Your task to perform on an android device: clear all cookies in the chrome app Image 0: 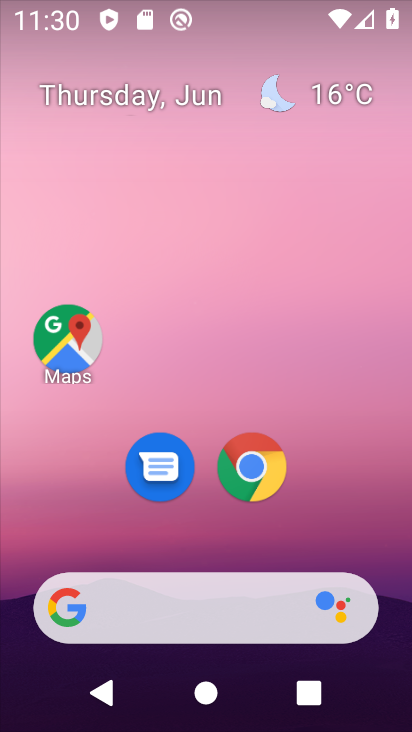
Step 0: click (250, 473)
Your task to perform on an android device: clear all cookies in the chrome app Image 1: 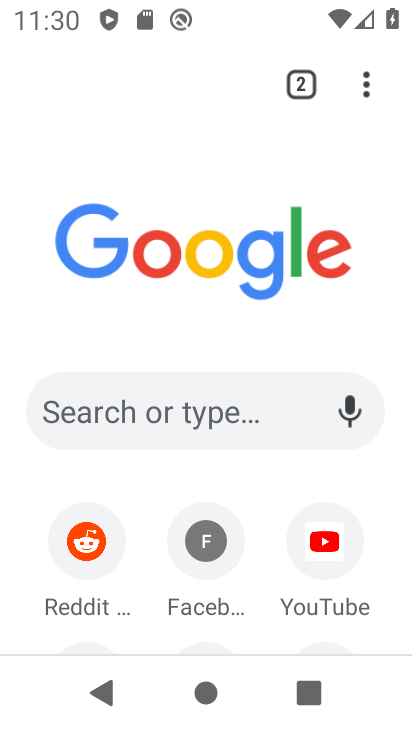
Step 1: click (366, 94)
Your task to perform on an android device: clear all cookies in the chrome app Image 2: 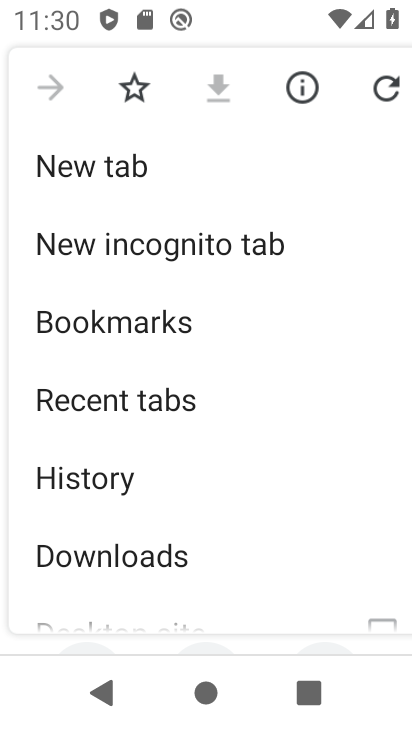
Step 2: drag from (222, 559) to (310, 104)
Your task to perform on an android device: clear all cookies in the chrome app Image 3: 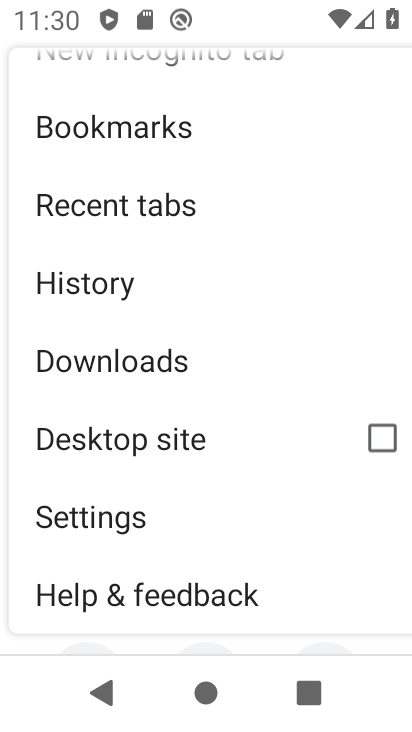
Step 3: click (136, 523)
Your task to perform on an android device: clear all cookies in the chrome app Image 4: 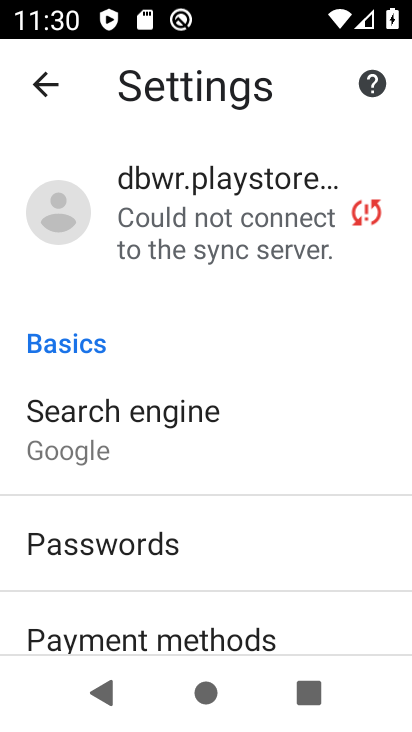
Step 4: drag from (275, 616) to (282, 184)
Your task to perform on an android device: clear all cookies in the chrome app Image 5: 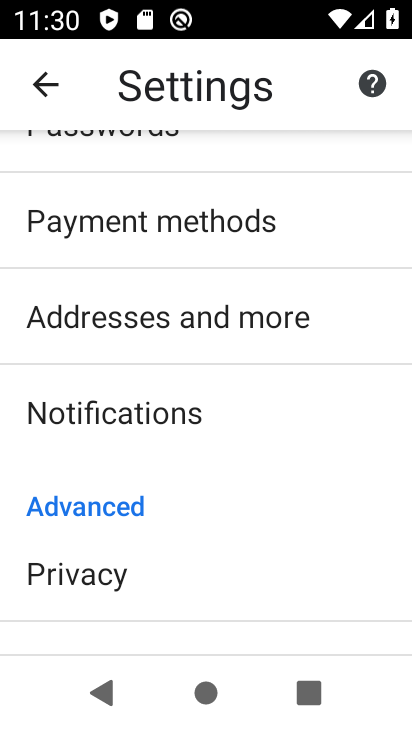
Step 5: drag from (216, 577) to (318, 139)
Your task to perform on an android device: clear all cookies in the chrome app Image 6: 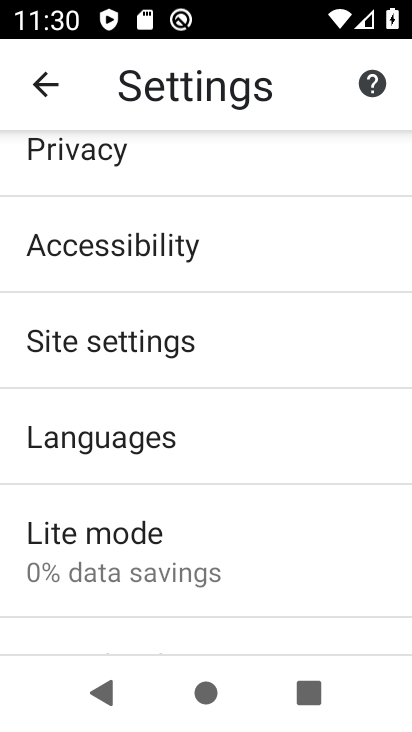
Step 6: press back button
Your task to perform on an android device: clear all cookies in the chrome app Image 7: 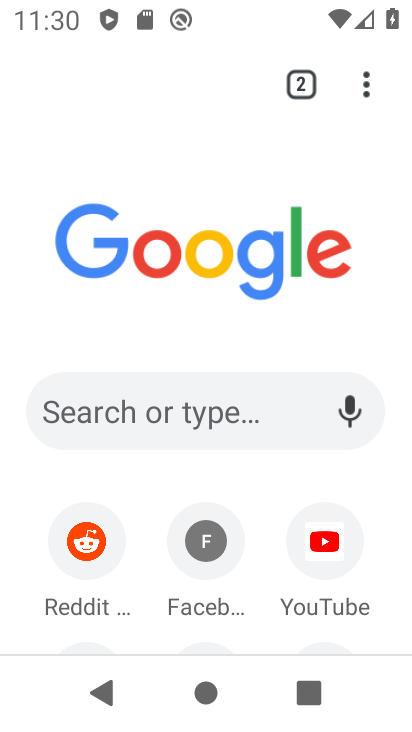
Step 7: click (364, 93)
Your task to perform on an android device: clear all cookies in the chrome app Image 8: 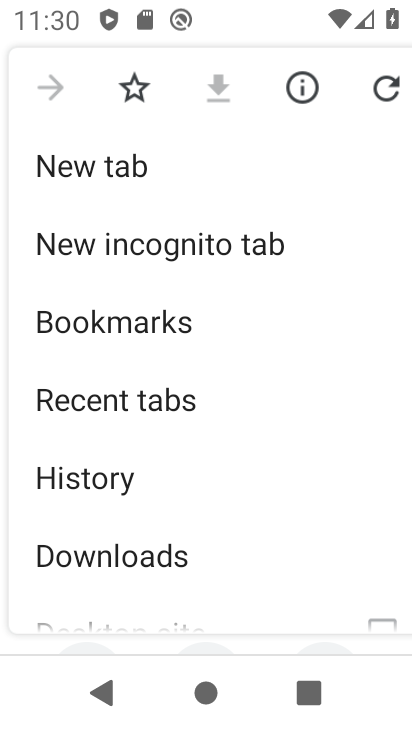
Step 8: click (87, 490)
Your task to perform on an android device: clear all cookies in the chrome app Image 9: 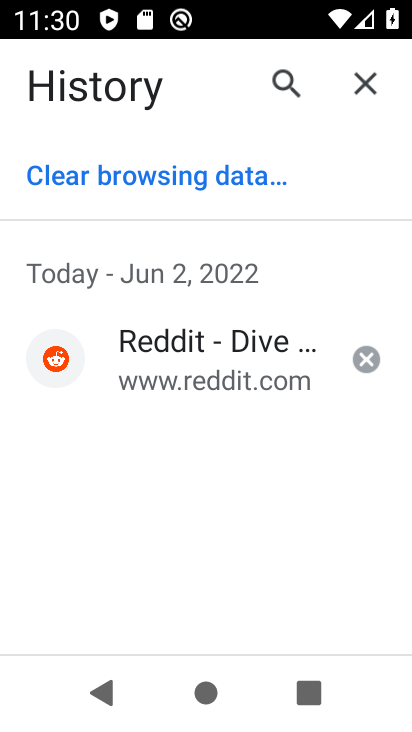
Step 9: click (139, 179)
Your task to perform on an android device: clear all cookies in the chrome app Image 10: 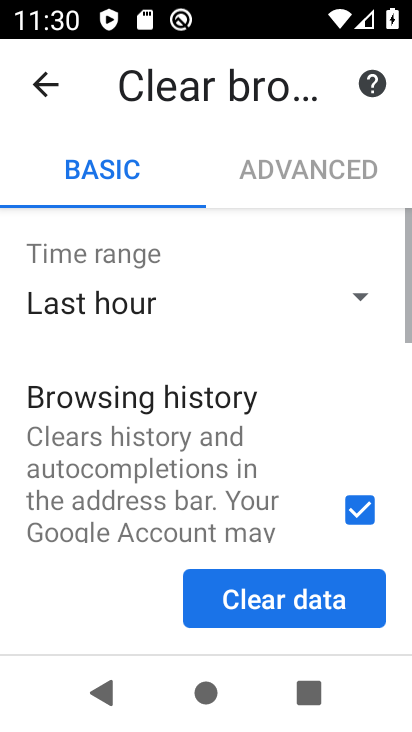
Step 10: drag from (258, 511) to (252, 178)
Your task to perform on an android device: clear all cookies in the chrome app Image 11: 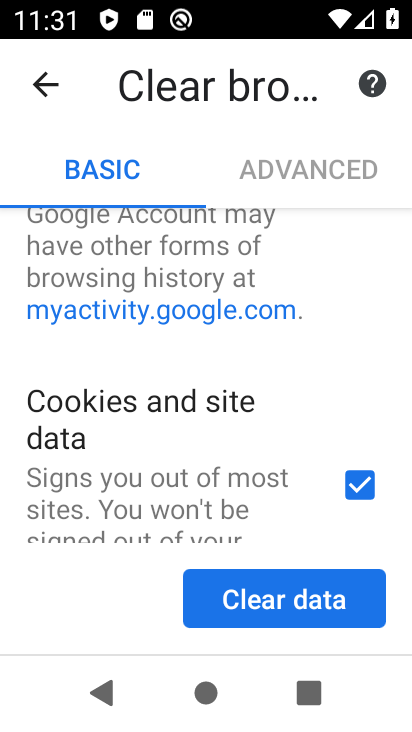
Step 11: drag from (355, 232) to (325, 388)
Your task to perform on an android device: clear all cookies in the chrome app Image 12: 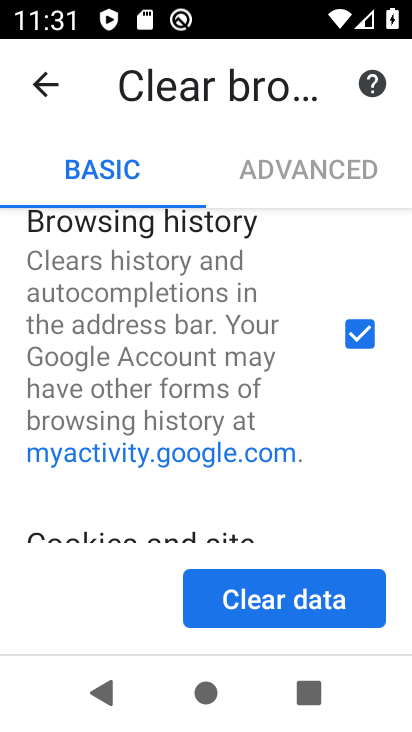
Step 12: click (355, 338)
Your task to perform on an android device: clear all cookies in the chrome app Image 13: 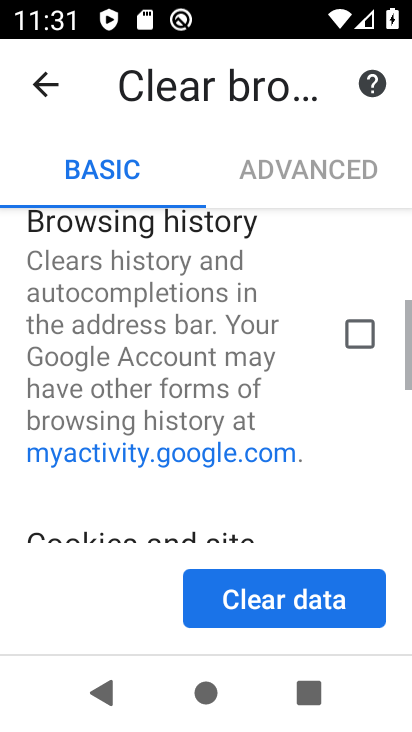
Step 13: drag from (315, 510) to (247, 47)
Your task to perform on an android device: clear all cookies in the chrome app Image 14: 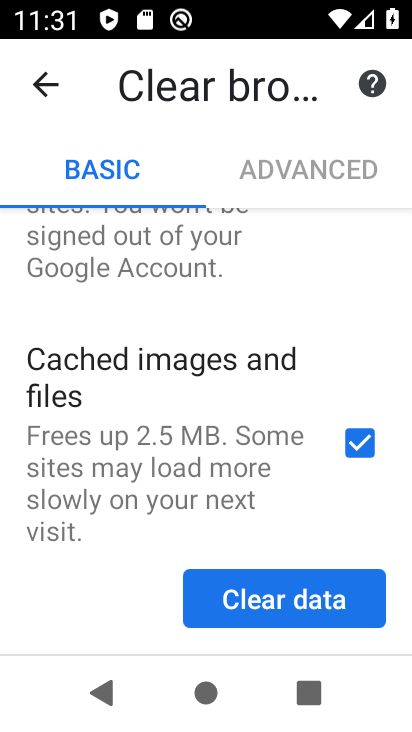
Step 14: click (347, 437)
Your task to perform on an android device: clear all cookies in the chrome app Image 15: 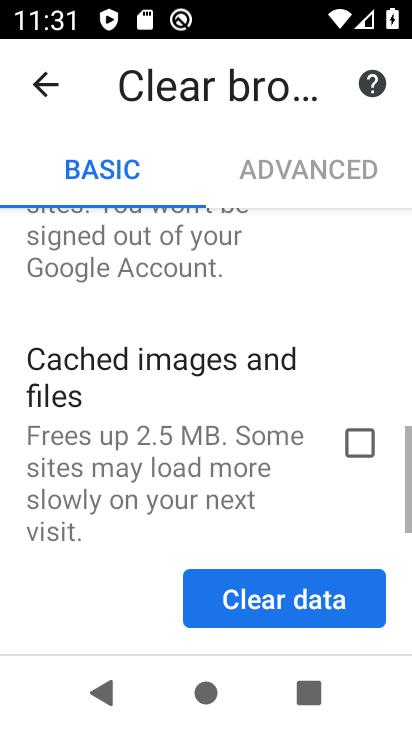
Step 15: click (291, 611)
Your task to perform on an android device: clear all cookies in the chrome app Image 16: 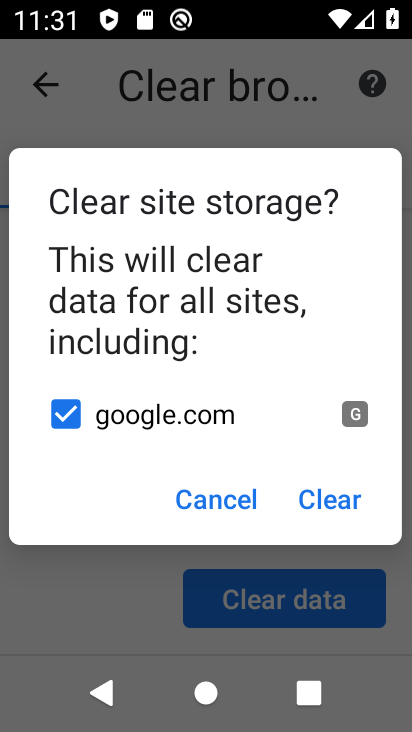
Step 16: click (324, 496)
Your task to perform on an android device: clear all cookies in the chrome app Image 17: 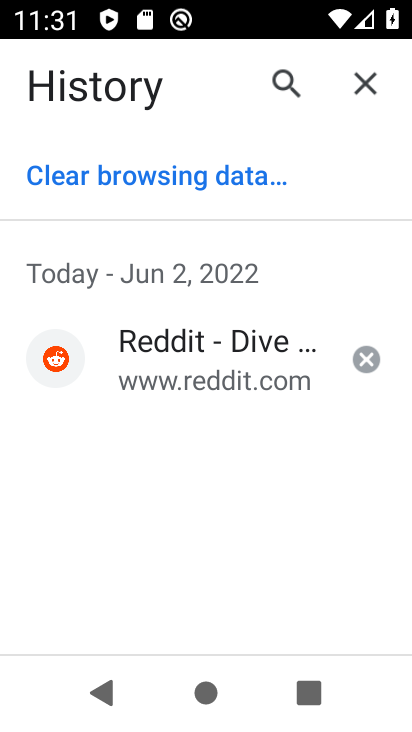
Step 17: task complete